Your task to perform on an android device: When is my next meeting? Image 0: 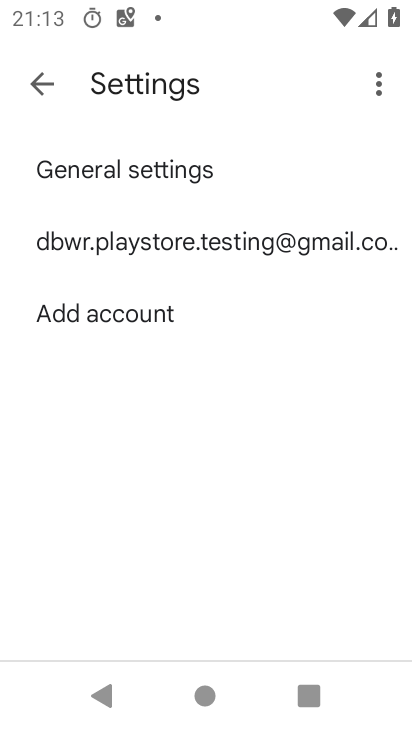
Step 0: press home button
Your task to perform on an android device: When is my next meeting? Image 1: 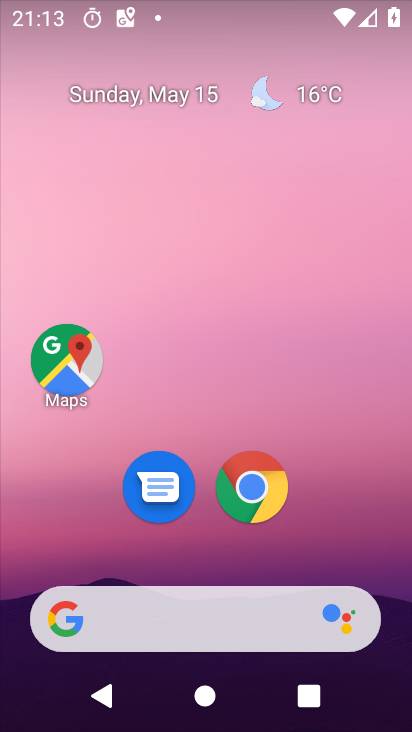
Step 1: drag from (387, 652) to (364, 324)
Your task to perform on an android device: When is my next meeting? Image 2: 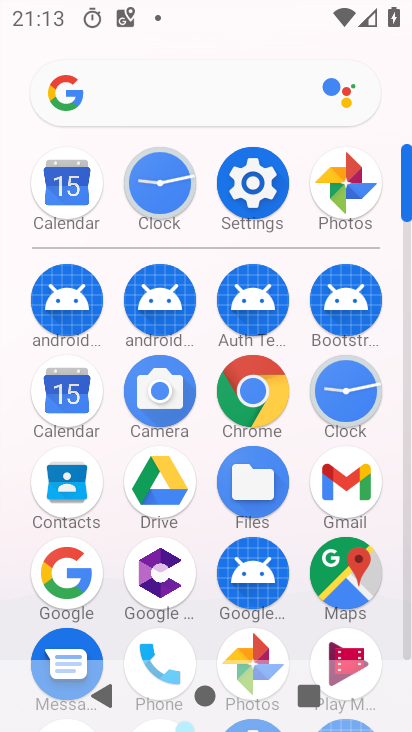
Step 2: click (54, 404)
Your task to perform on an android device: When is my next meeting? Image 3: 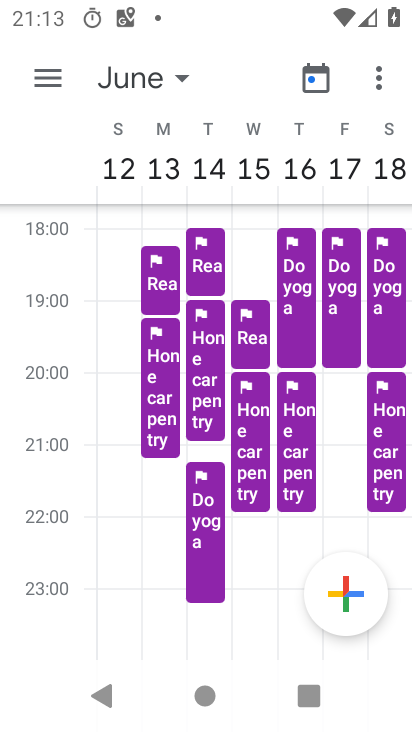
Step 3: click (32, 73)
Your task to perform on an android device: When is my next meeting? Image 4: 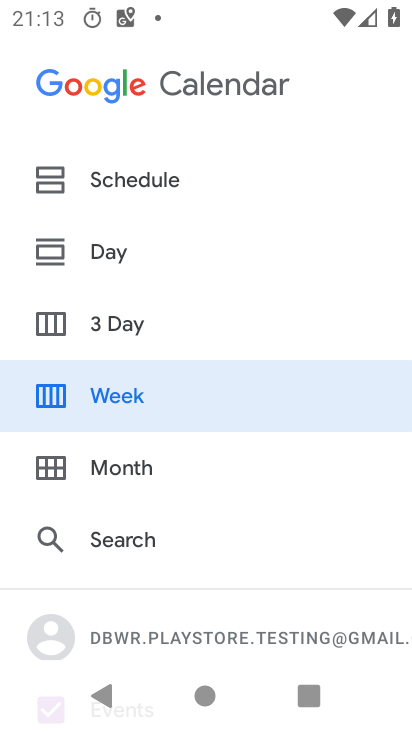
Step 4: click (108, 176)
Your task to perform on an android device: When is my next meeting? Image 5: 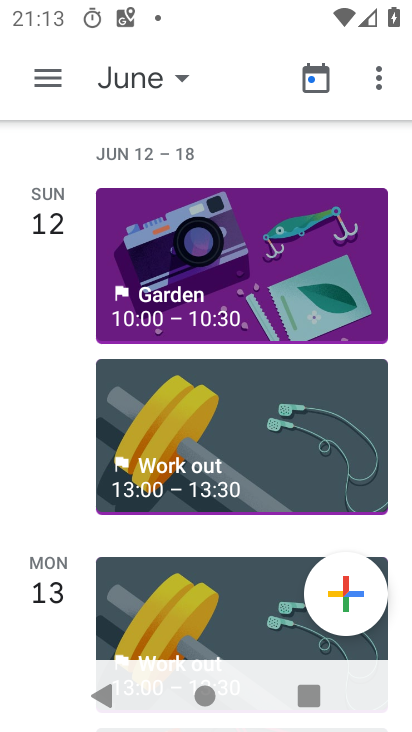
Step 5: click (48, 78)
Your task to perform on an android device: When is my next meeting? Image 6: 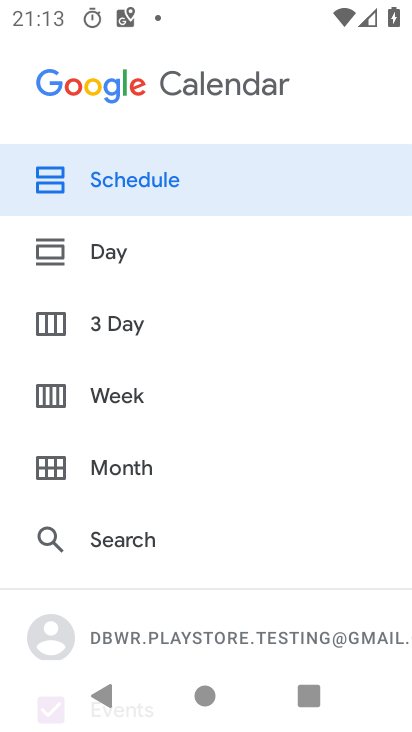
Step 6: click (45, 175)
Your task to perform on an android device: When is my next meeting? Image 7: 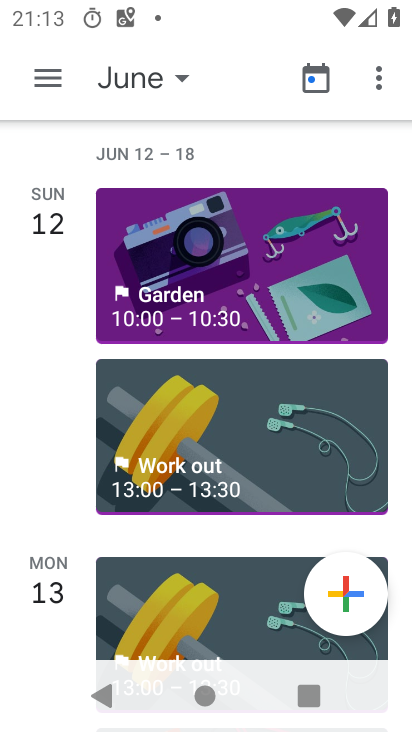
Step 7: click (176, 73)
Your task to perform on an android device: When is my next meeting? Image 8: 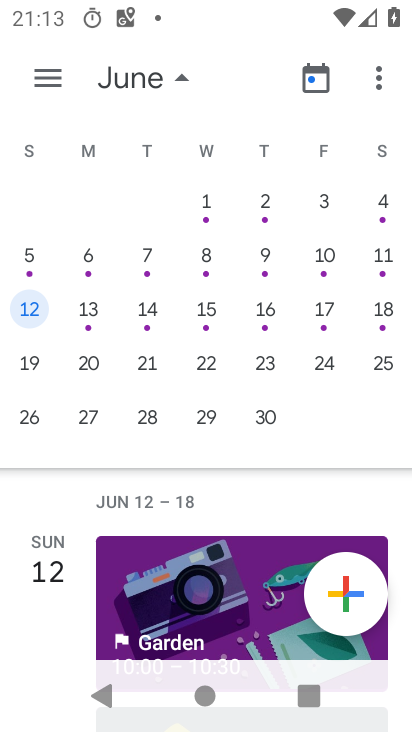
Step 8: drag from (9, 204) to (315, 259)
Your task to perform on an android device: When is my next meeting? Image 9: 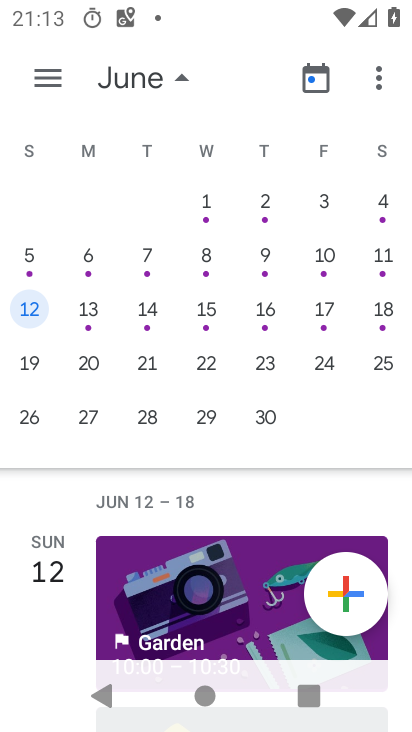
Step 9: drag from (2, 276) to (368, 283)
Your task to perform on an android device: When is my next meeting? Image 10: 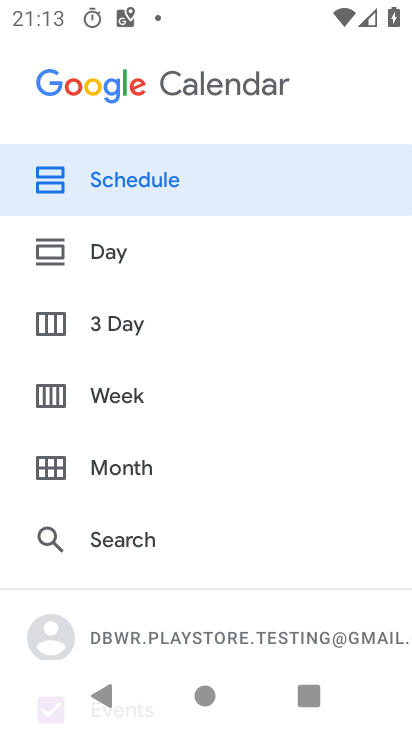
Step 10: press back button
Your task to perform on an android device: When is my next meeting? Image 11: 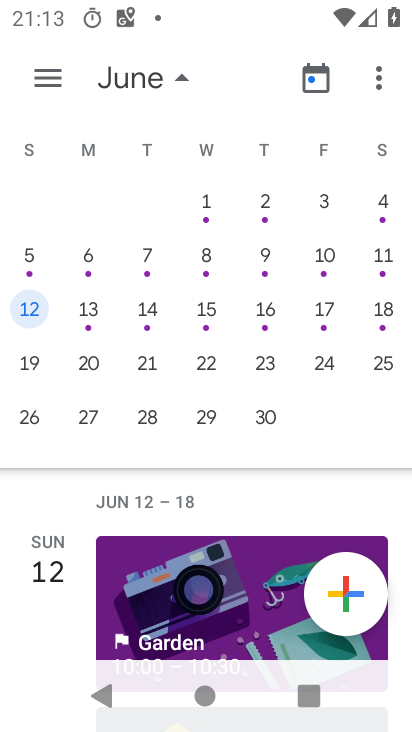
Step 11: drag from (25, 195) to (337, 184)
Your task to perform on an android device: When is my next meeting? Image 12: 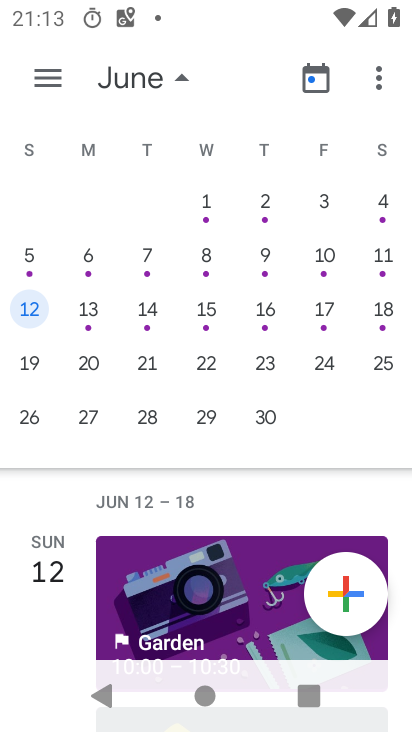
Step 12: drag from (15, 206) to (304, 201)
Your task to perform on an android device: When is my next meeting? Image 13: 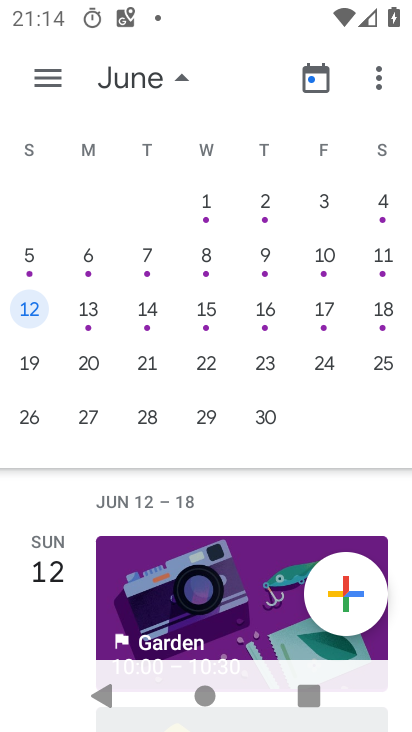
Step 13: drag from (9, 445) to (401, 406)
Your task to perform on an android device: When is my next meeting? Image 14: 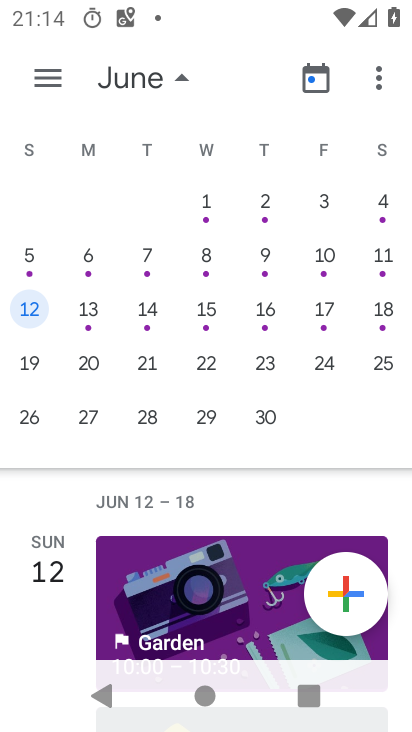
Step 14: drag from (11, 214) to (292, 195)
Your task to perform on an android device: When is my next meeting? Image 15: 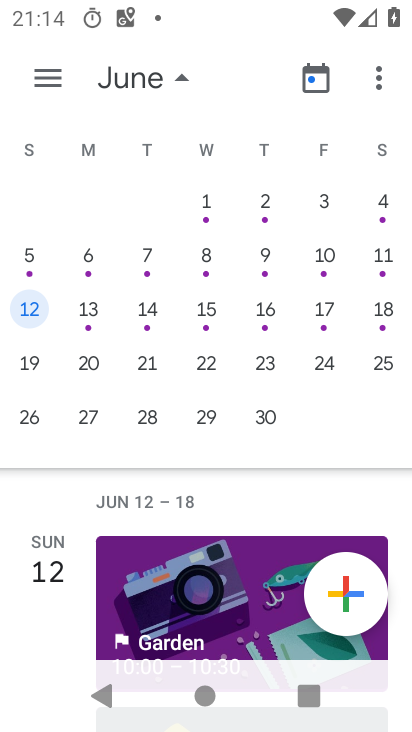
Step 15: drag from (8, 214) to (406, 199)
Your task to perform on an android device: When is my next meeting? Image 16: 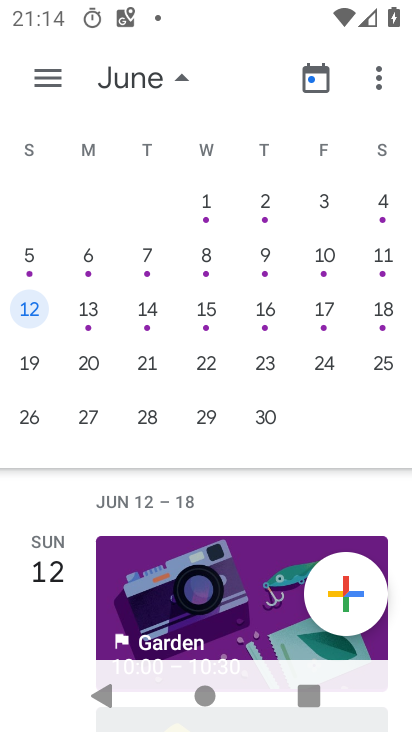
Step 16: drag from (59, 200) to (404, 193)
Your task to perform on an android device: When is my next meeting? Image 17: 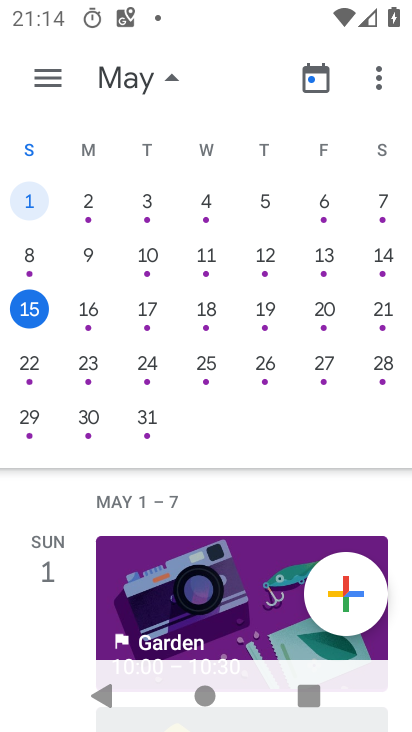
Step 17: drag from (66, 176) to (237, 184)
Your task to perform on an android device: When is my next meeting? Image 18: 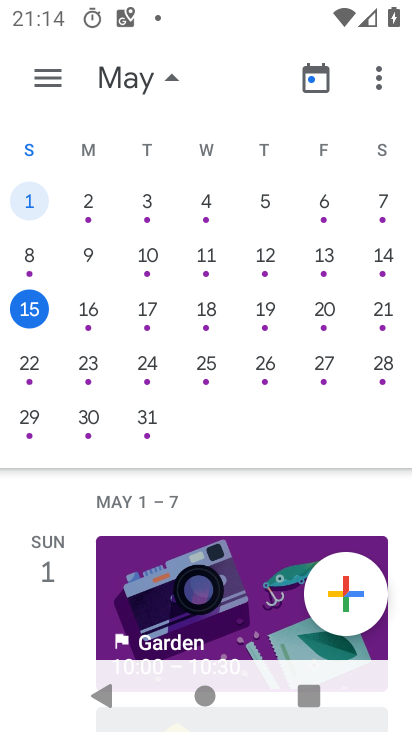
Step 18: click (47, 82)
Your task to perform on an android device: When is my next meeting? Image 19: 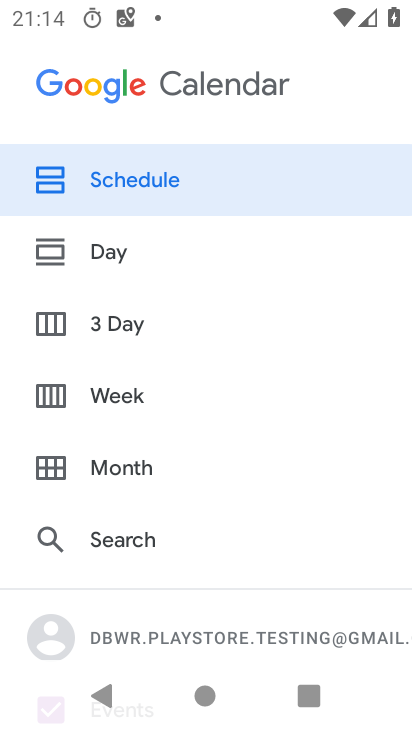
Step 19: click (105, 179)
Your task to perform on an android device: When is my next meeting? Image 20: 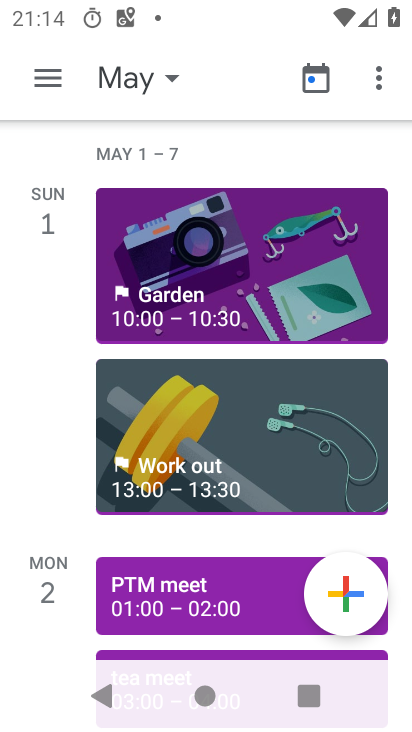
Step 20: click (42, 76)
Your task to perform on an android device: When is my next meeting? Image 21: 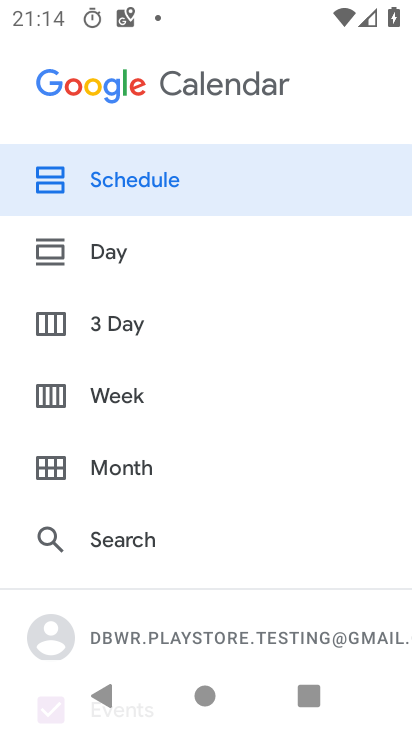
Step 21: task complete